Your task to perform on an android device: find snoozed emails in the gmail app Image 0: 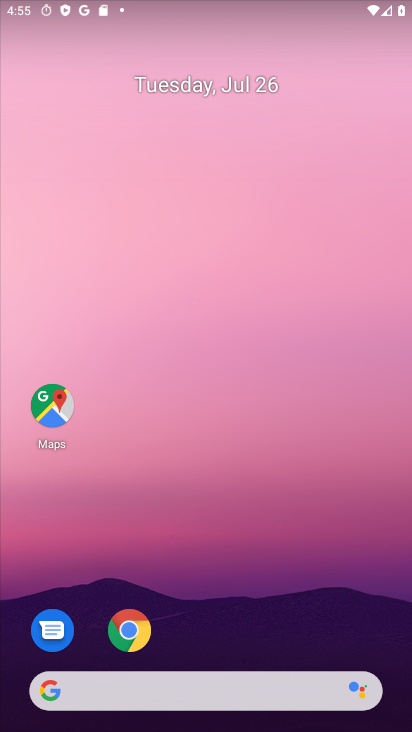
Step 0: drag from (332, 586) to (302, 55)
Your task to perform on an android device: find snoozed emails in the gmail app Image 1: 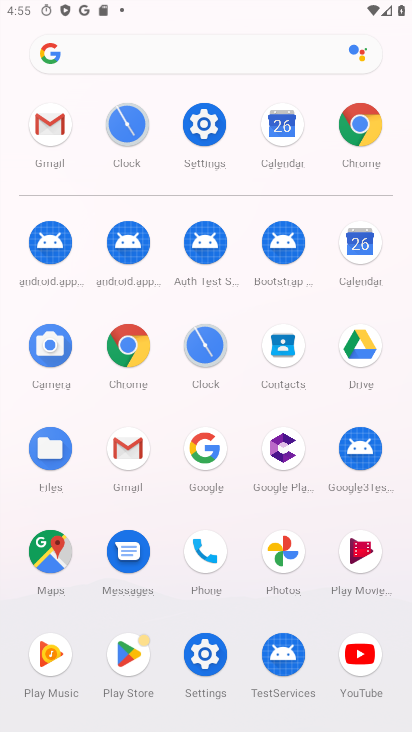
Step 1: click (48, 125)
Your task to perform on an android device: find snoozed emails in the gmail app Image 2: 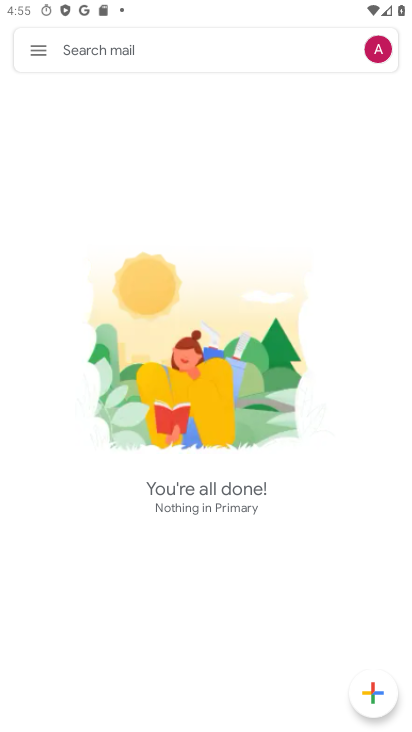
Step 2: click (47, 51)
Your task to perform on an android device: find snoozed emails in the gmail app Image 3: 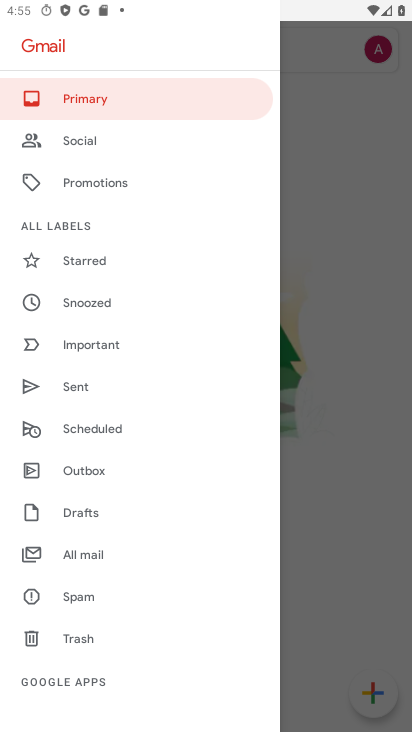
Step 3: click (98, 305)
Your task to perform on an android device: find snoozed emails in the gmail app Image 4: 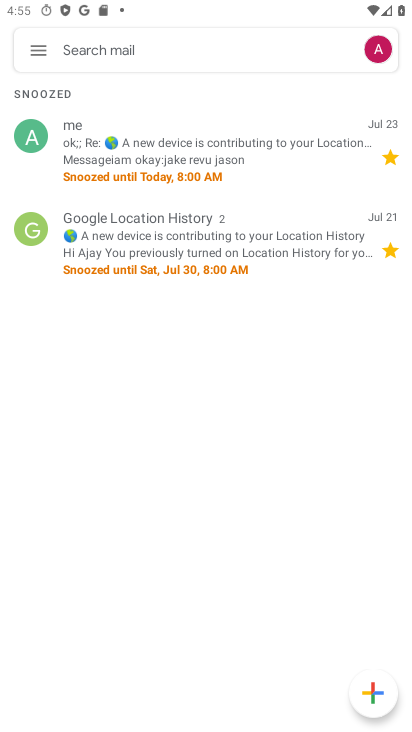
Step 4: task complete